Your task to perform on an android device: Open internet settings Image 0: 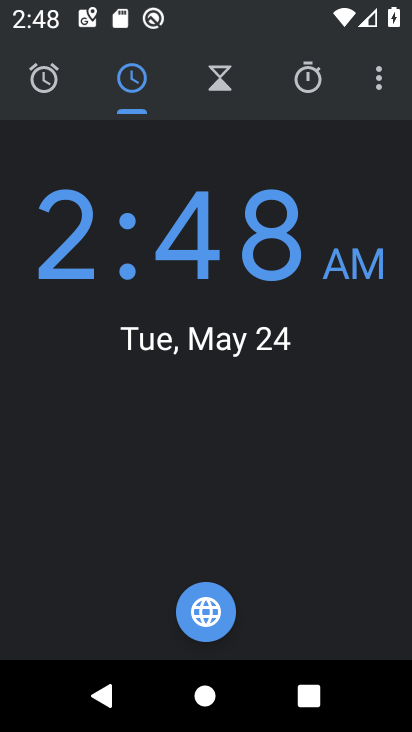
Step 0: press home button
Your task to perform on an android device: Open internet settings Image 1: 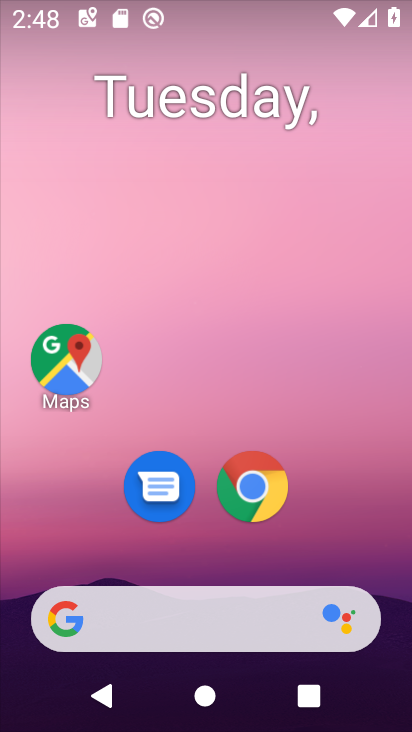
Step 1: drag from (213, 559) to (255, 131)
Your task to perform on an android device: Open internet settings Image 2: 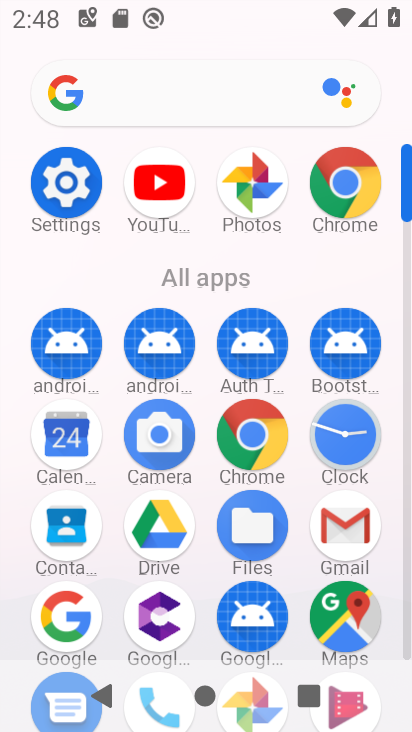
Step 2: click (61, 181)
Your task to perform on an android device: Open internet settings Image 3: 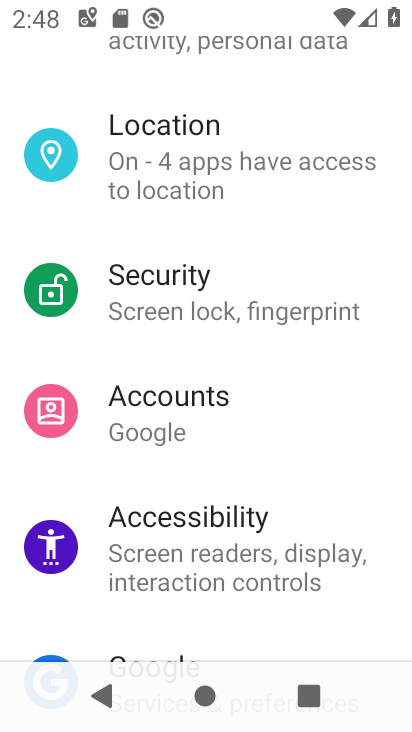
Step 3: drag from (79, 142) to (43, 430)
Your task to perform on an android device: Open internet settings Image 4: 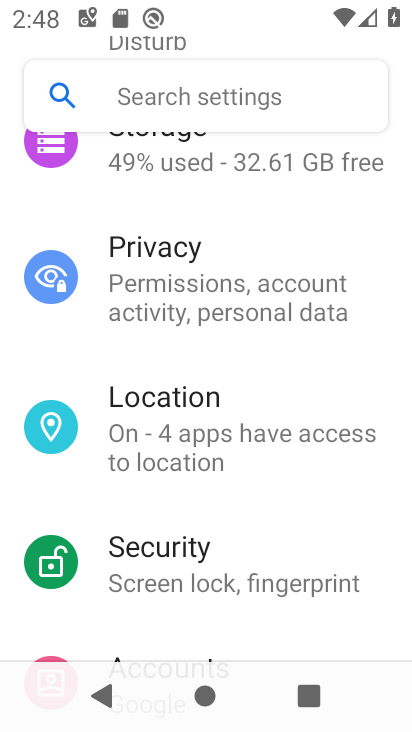
Step 4: drag from (100, 214) to (92, 598)
Your task to perform on an android device: Open internet settings Image 5: 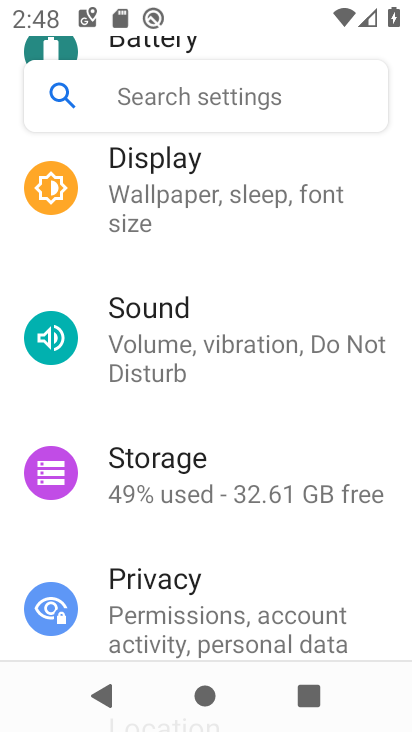
Step 5: drag from (107, 173) to (112, 503)
Your task to perform on an android device: Open internet settings Image 6: 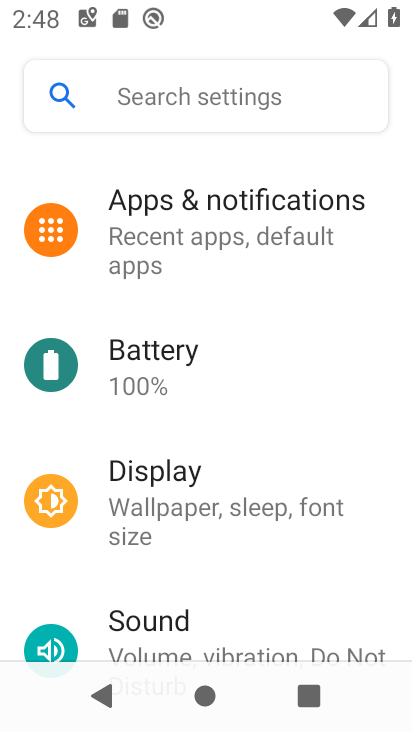
Step 6: drag from (97, 212) to (83, 690)
Your task to perform on an android device: Open internet settings Image 7: 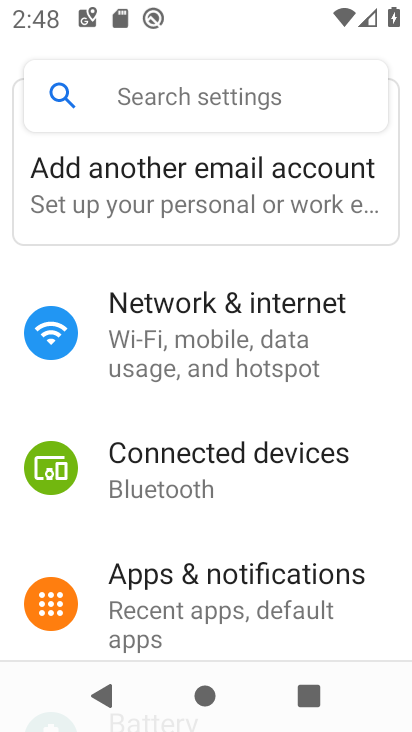
Step 7: click (103, 329)
Your task to perform on an android device: Open internet settings Image 8: 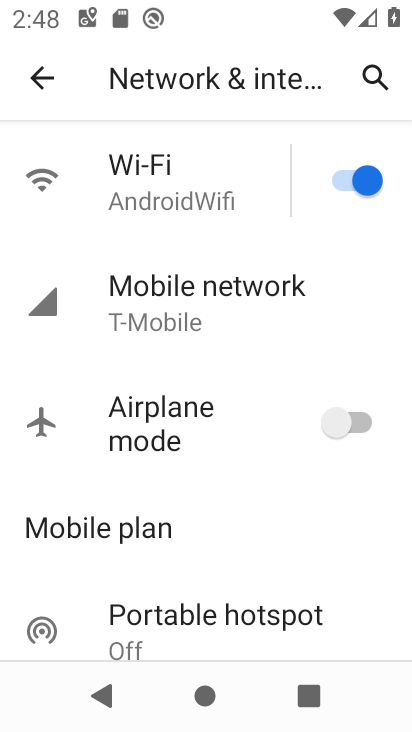
Step 8: click (231, 200)
Your task to perform on an android device: Open internet settings Image 9: 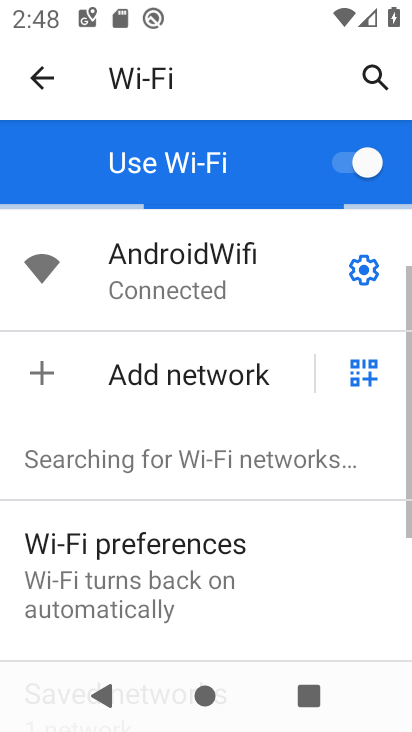
Step 9: task complete